Your task to perform on an android device: empty trash in google photos Image 0: 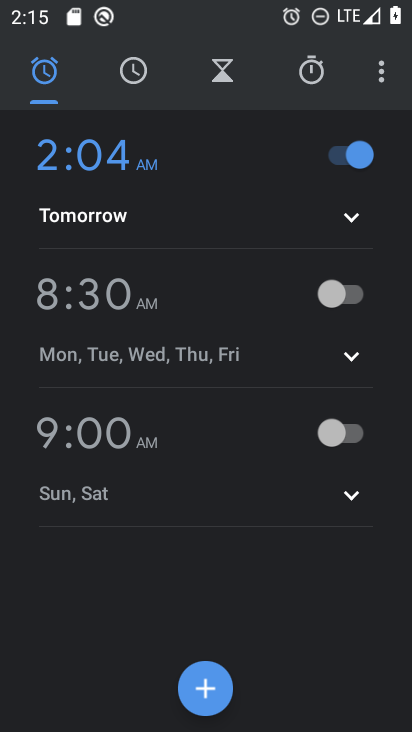
Step 0: press home button
Your task to perform on an android device: empty trash in google photos Image 1: 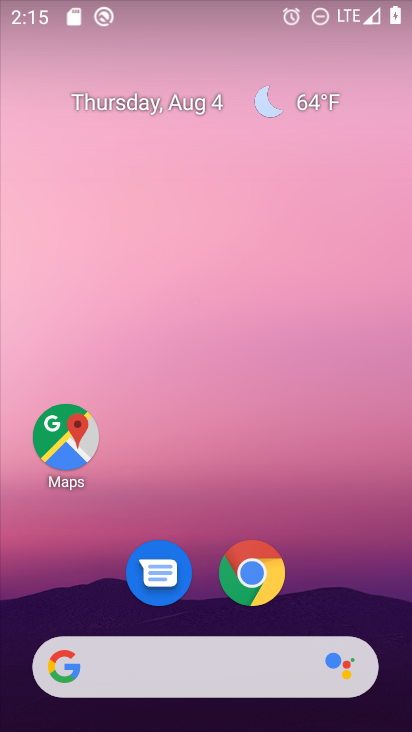
Step 1: drag from (329, 470) to (270, 121)
Your task to perform on an android device: empty trash in google photos Image 2: 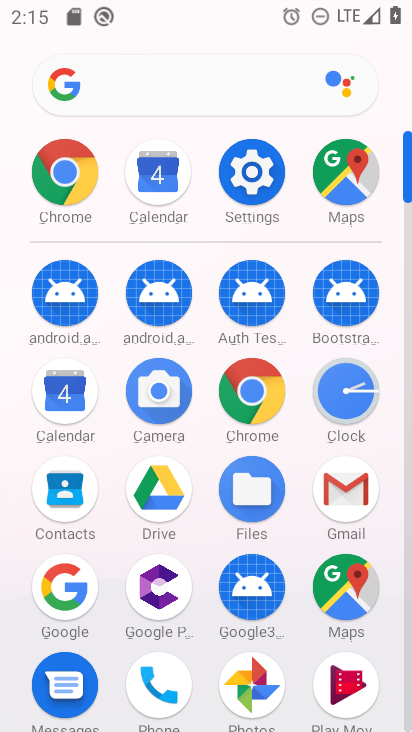
Step 2: click (259, 690)
Your task to perform on an android device: empty trash in google photos Image 3: 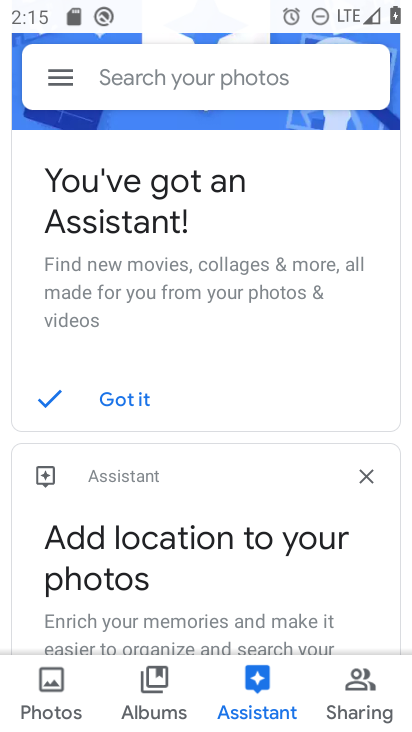
Step 3: click (41, 675)
Your task to perform on an android device: empty trash in google photos Image 4: 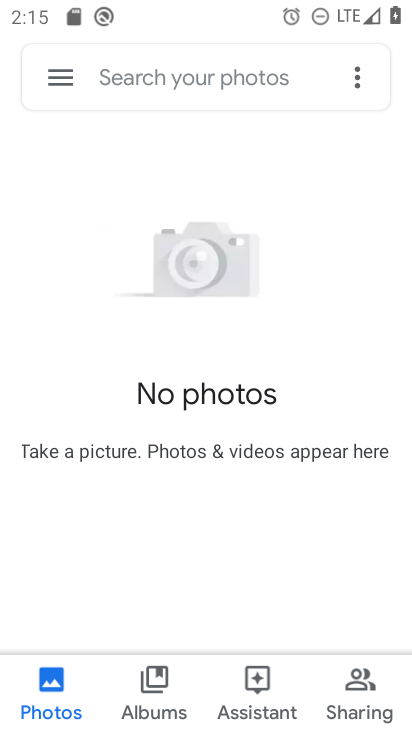
Step 4: click (357, 79)
Your task to perform on an android device: empty trash in google photos Image 5: 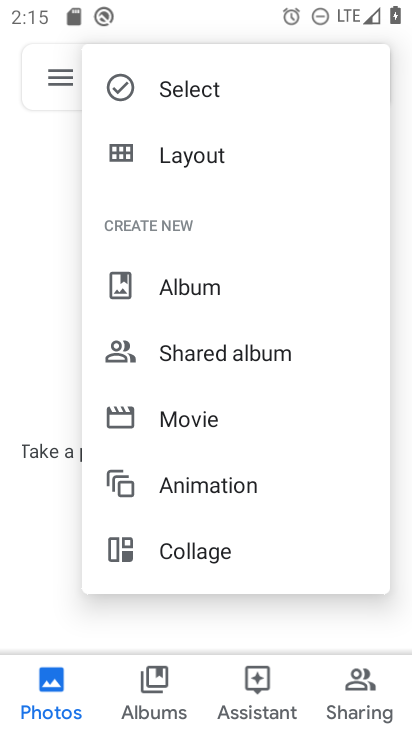
Step 5: click (57, 66)
Your task to perform on an android device: empty trash in google photos Image 6: 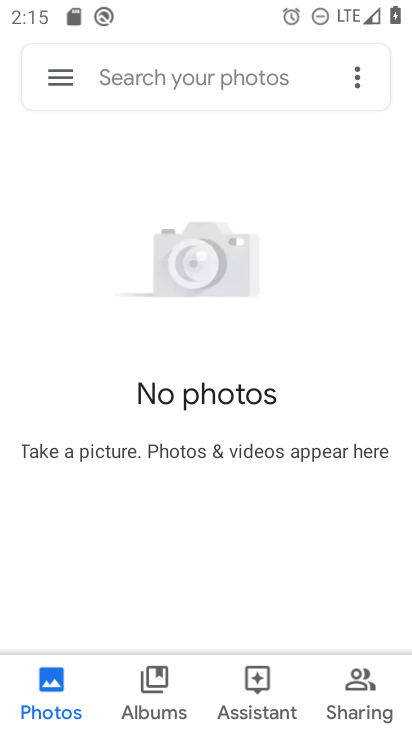
Step 6: click (57, 66)
Your task to perform on an android device: empty trash in google photos Image 7: 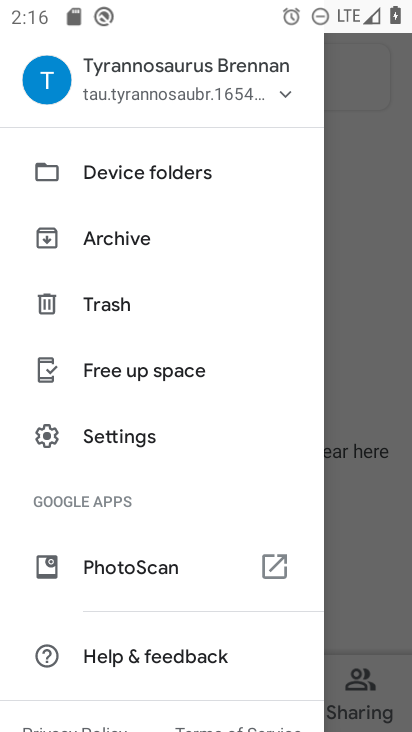
Step 7: click (88, 306)
Your task to perform on an android device: empty trash in google photos Image 8: 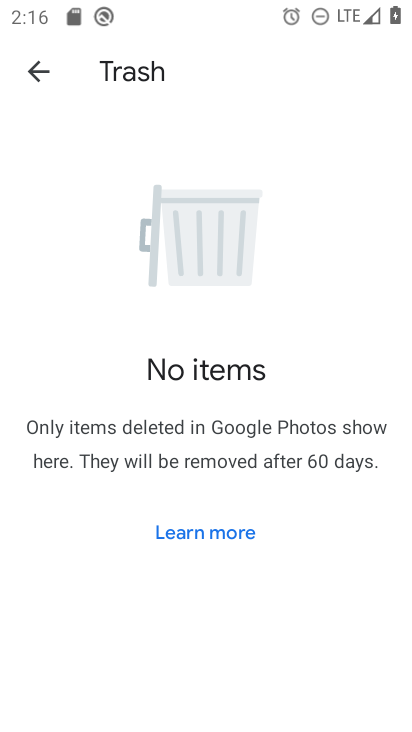
Step 8: task complete